Your task to perform on an android device: clear history in the chrome app Image 0: 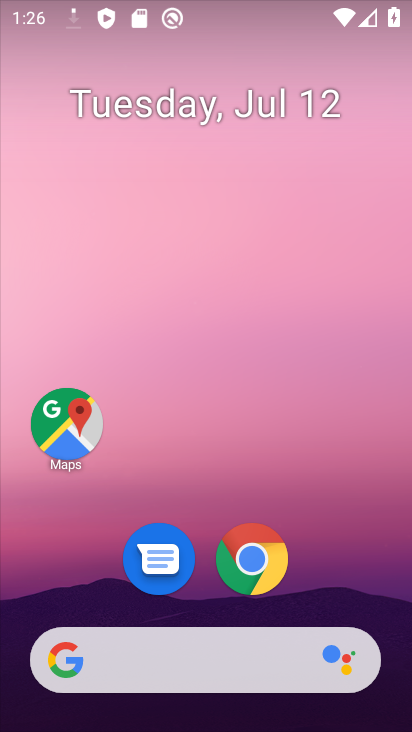
Step 0: drag from (362, 577) to (362, 289)
Your task to perform on an android device: clear history in the chrome app Image 1: 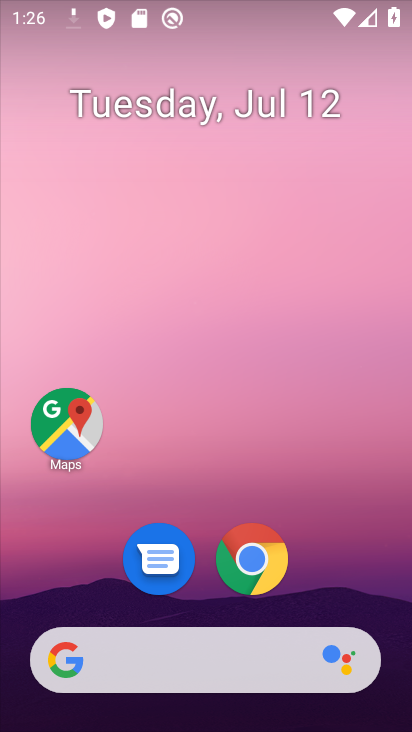
Step 1: drag from (375, 552) to (379, 157)
Your task to perform on an android device: clear history in the chrome app Image 2: 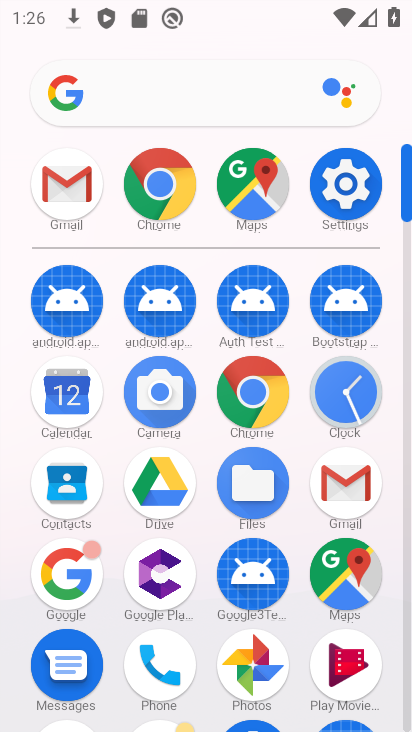
Step 2: click (266, 407)
Your task to perform on an android device: clear history in the chrome app Image 3: 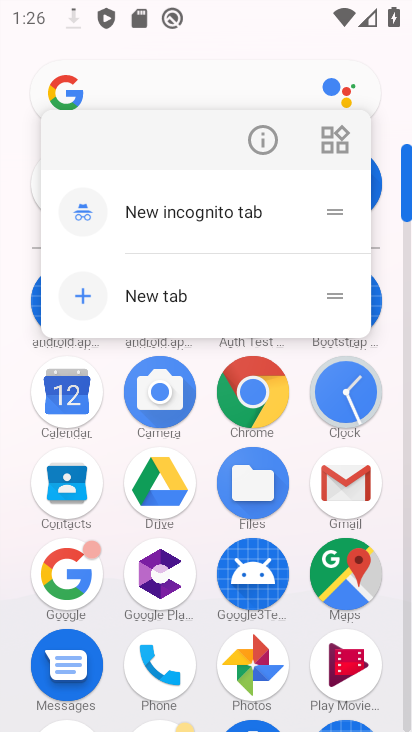
Step 3: click (266, 407)
Your task to perform on an android device: clear history in the chrome app Image 4: 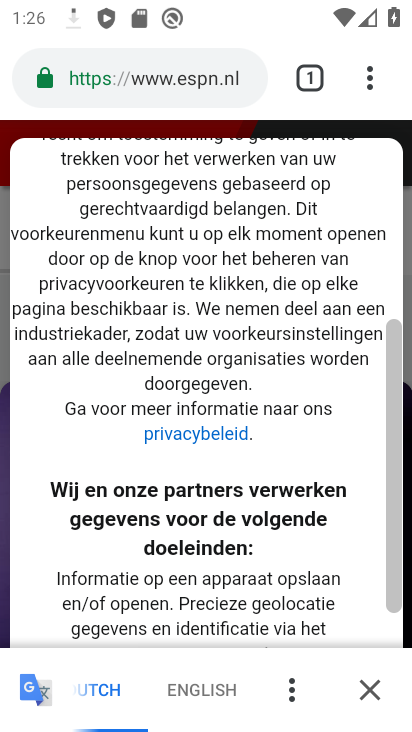
Step 4: click (372, 85)
Your task to perform on an android device: clear history in the chrome app Image 5: 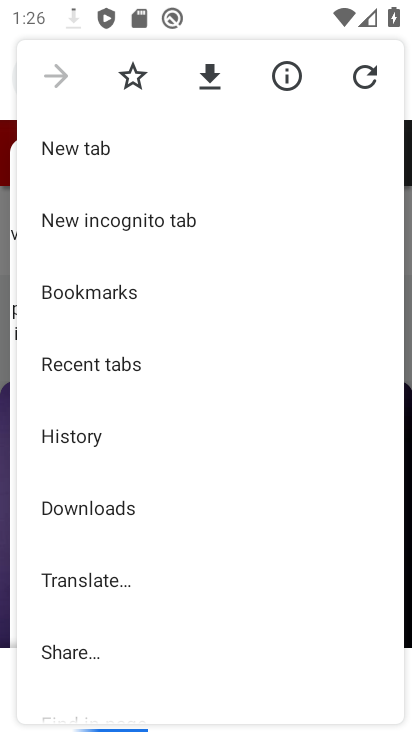
Step 5: drag from (249, 495) to (257, 350)
Your task to perform on an android device: clear history in the chrome app Image 6: 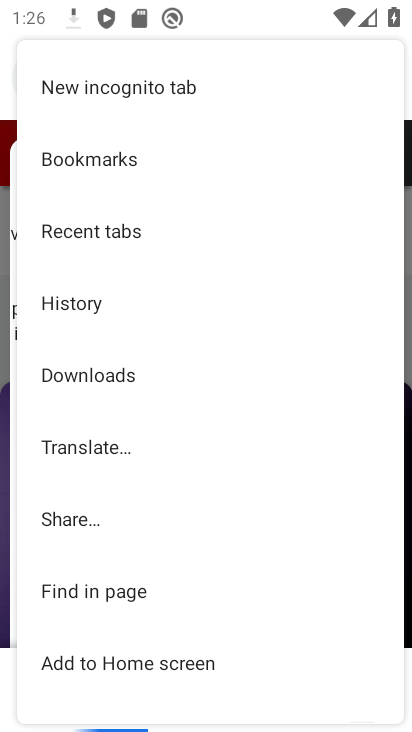
Step 6: drag from (231, 565) to (239, 424)
Your task to perform on an android device: clear history in the chrome app Image 7: 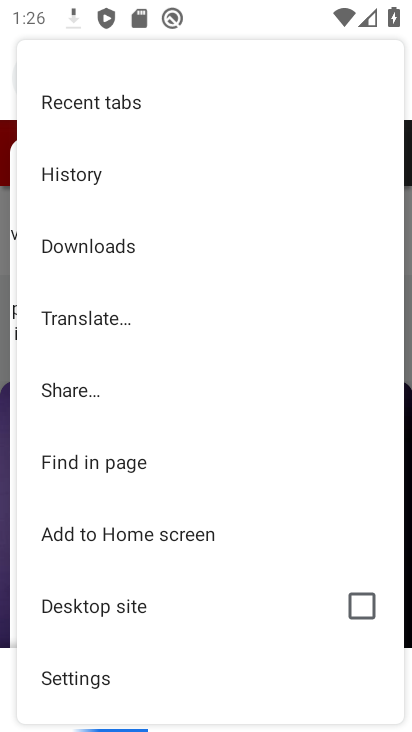
Step 7: drag from (209, 630) to (220, 458)
Your task to perform on an android device: clear history in the chrome app Image 8: 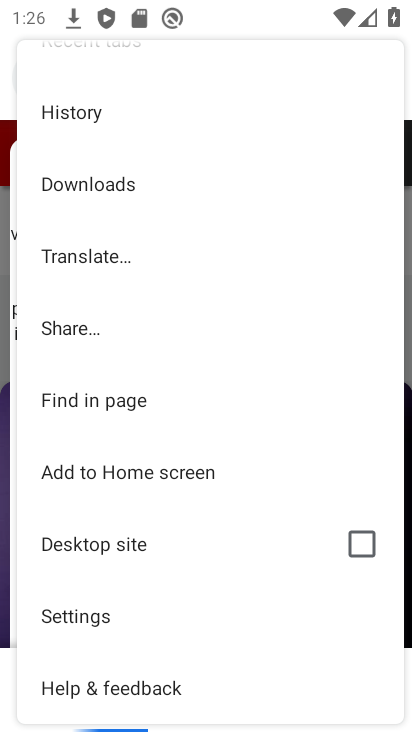
Step 8: drag from (212, 282) to (228, 525)
Your task to perform on an android device: clear history in the chrome app Image 9: 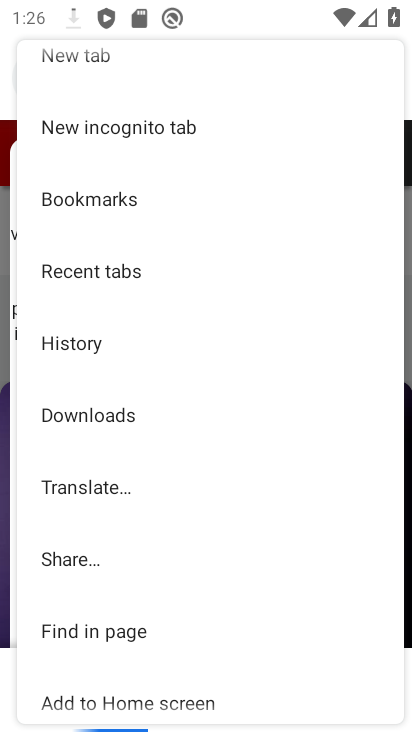
Step 9: click (108, 343)
Your task to perform on an android device: clear history in the chrome app Image 10: 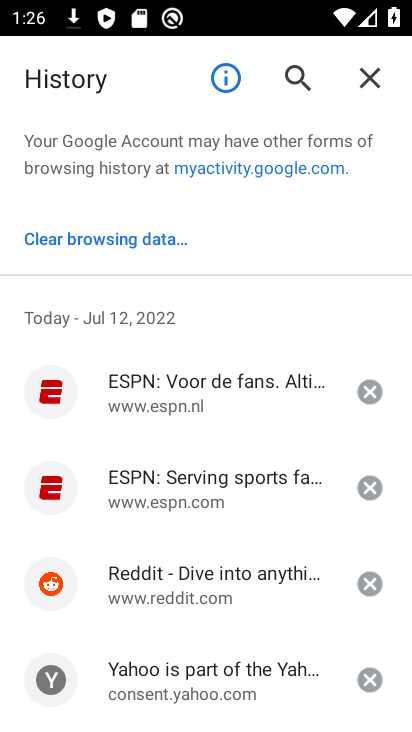
Step 10: click (167, 235)
Your task to perform on an android device: clear history in the chrome app Image 11: 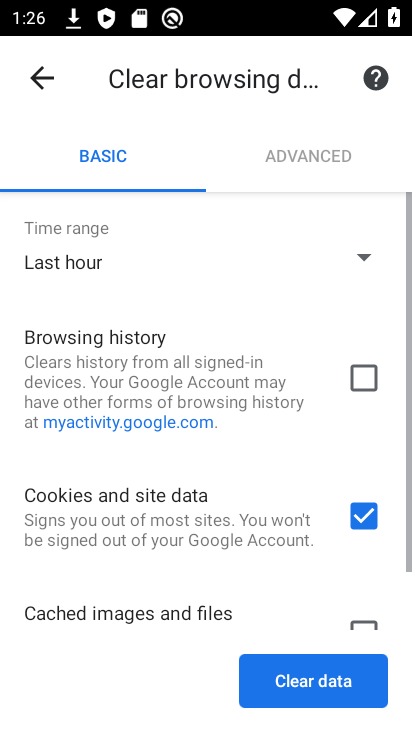
Step 11: click (336, 691)
Your task to perform on an android device: clear history in the chrome app Image 12: 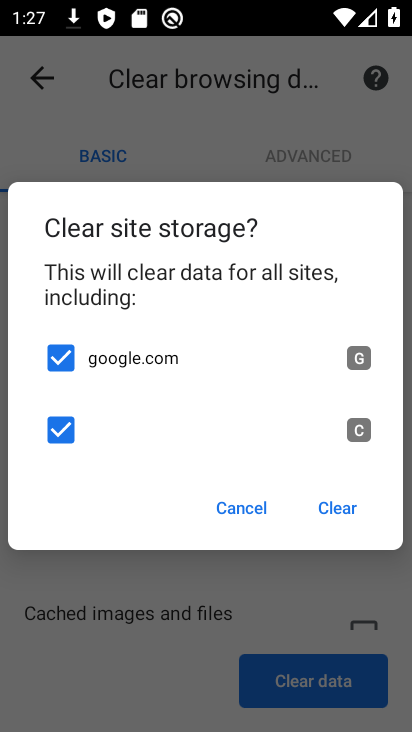
Step 12: click (320, 500)
Your task to perform on an android device: clear history in the chrome app Image 13: 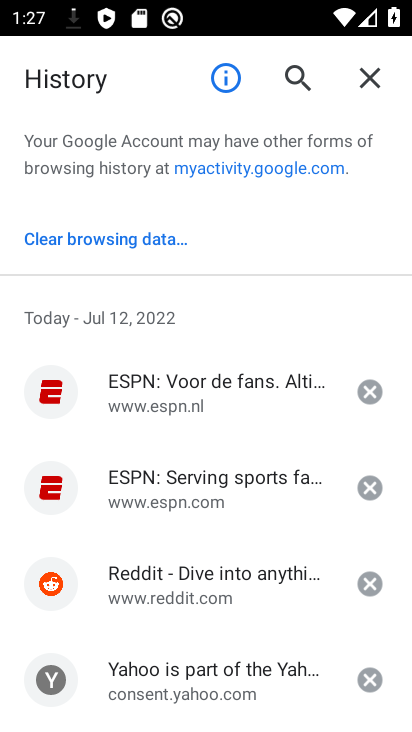
Step 13: click (151, 241)
Your task to perform on an android device: clear history in the chrome app Image 14: 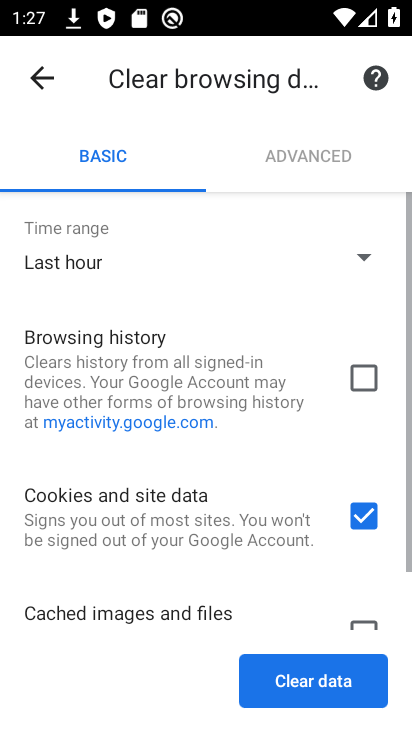
Step 14: click (373, 372)
Your task to perform on an android device: clear history in the chrome app Image 15: 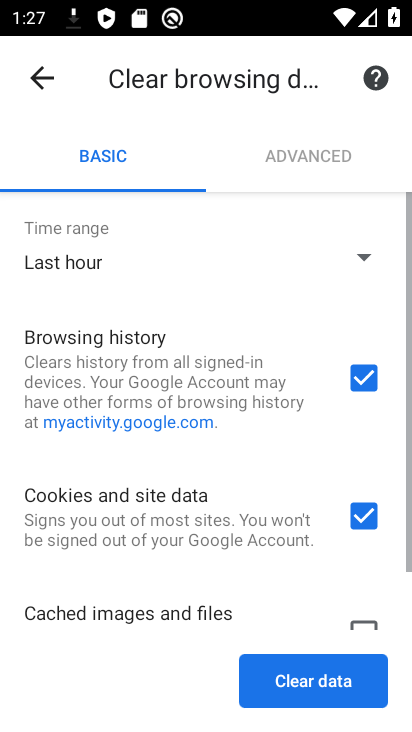
Step 15: drag from (305, 579) to (302, 401)
Your task to perform on an android device: clear history in the chrome app Image 16: 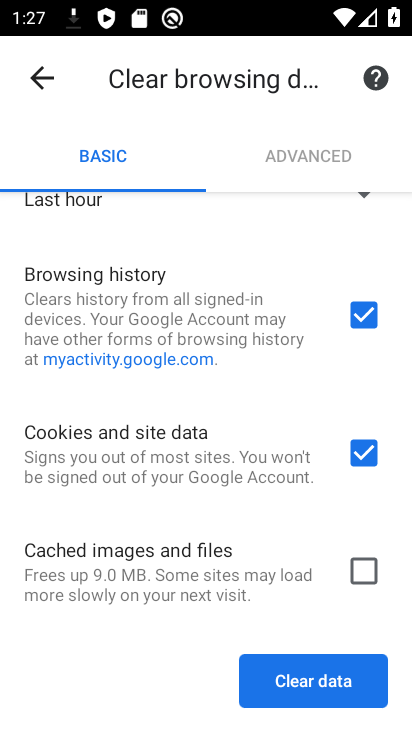
Step 16: click (364, 576)
Your task to perform on an android device: clear history in the chrome app Image 17: 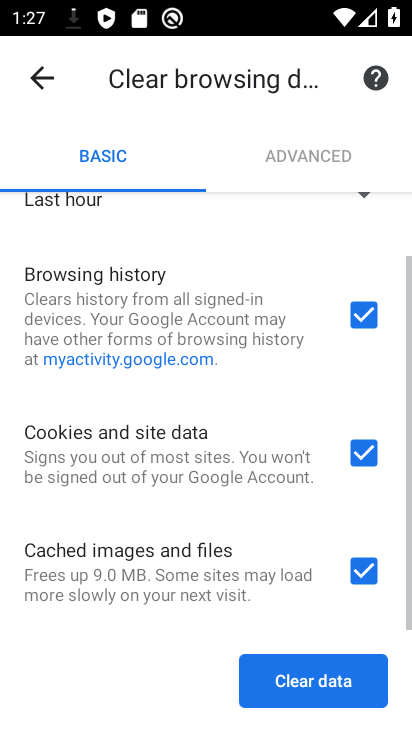
Step 17: click (289, 681)
Your task to perform on an android device: clear history in the chrome app Image 18: 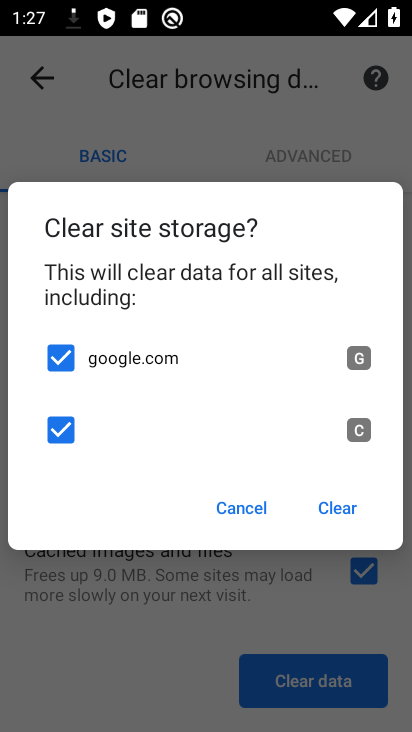
Step 18: click (340, 495)
Your task to perform on an android device: clear history in the chrome app Image 19: 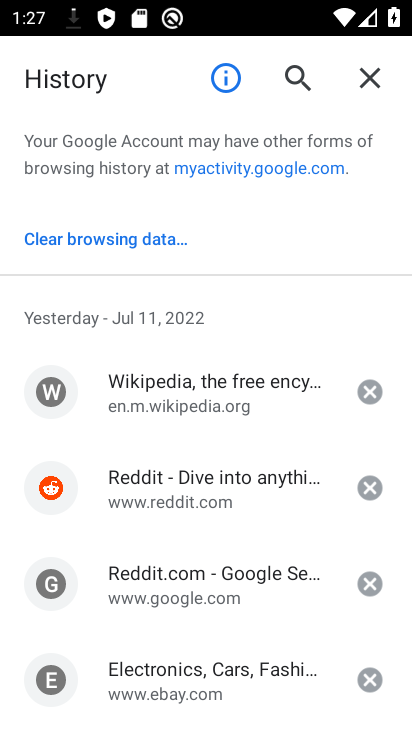
Step 19: click (126, 242)
Your task to perform on an android device: clear history in the chrome app Image 20: 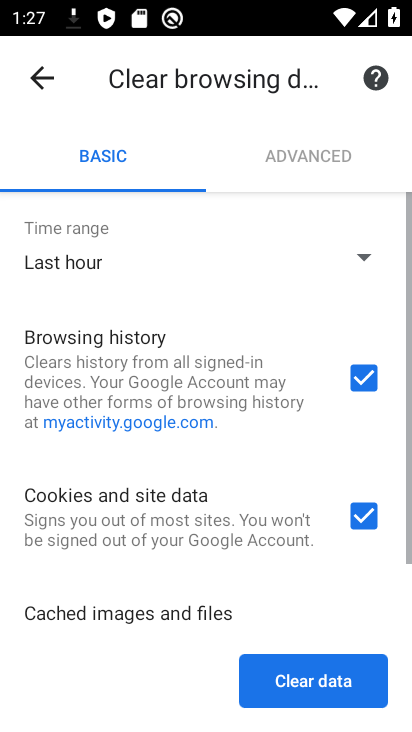
Step 20: click (298, 149)
Your task to perform on an android device: clear history in the chrome app Image 21: 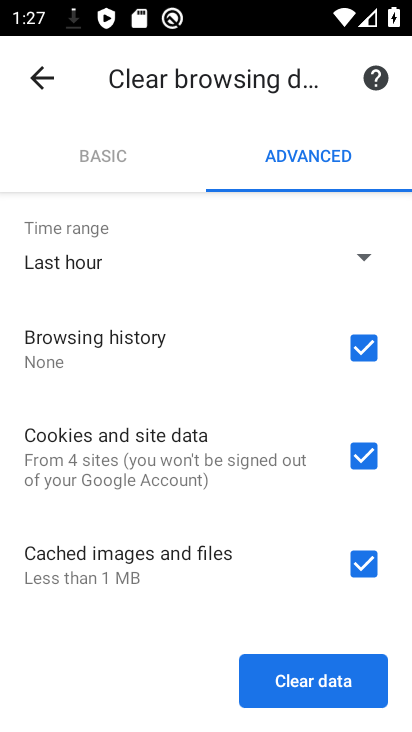
Step 21: click (314, 693)
Your task to perform on an android device: clear history in the chrome app Image 22: 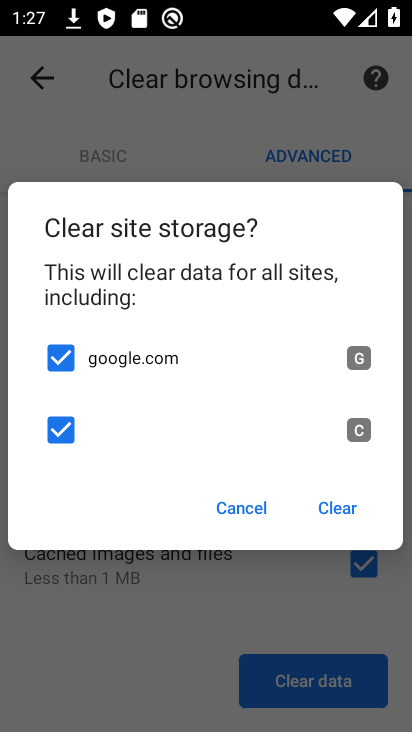
Step 22: click (314, 507)
Your task to perform on an android device: clear history in the chrome app Image 23: 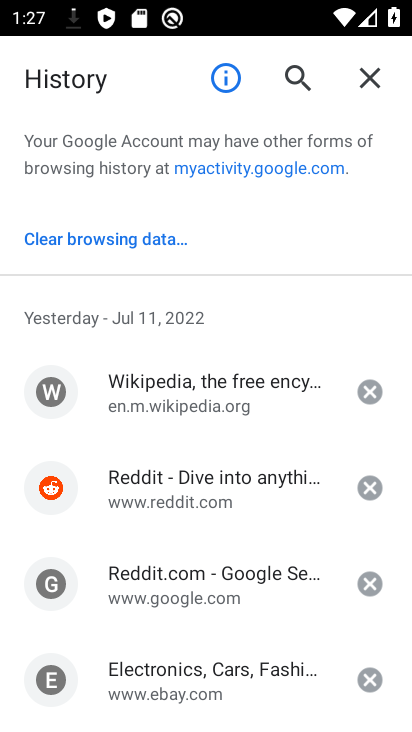
Step 23: click (104, 244)
Your task to perform on an android device: clear history in the chrome app Image 24: 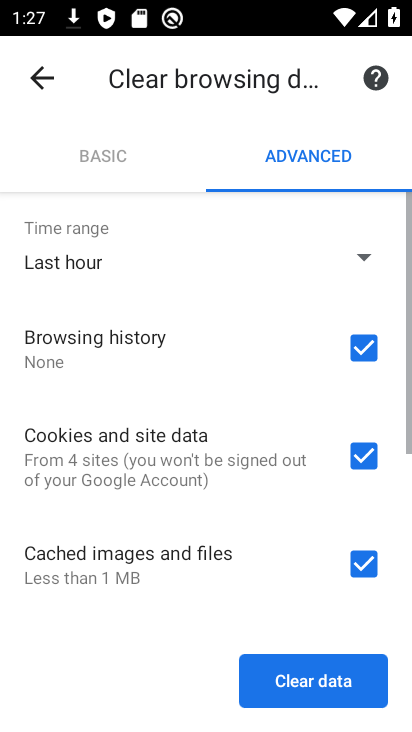
Step 24: drag from (281, 540) to (273, 322)
Your task to perform on an android device: clear history in the chrome app Image 25: 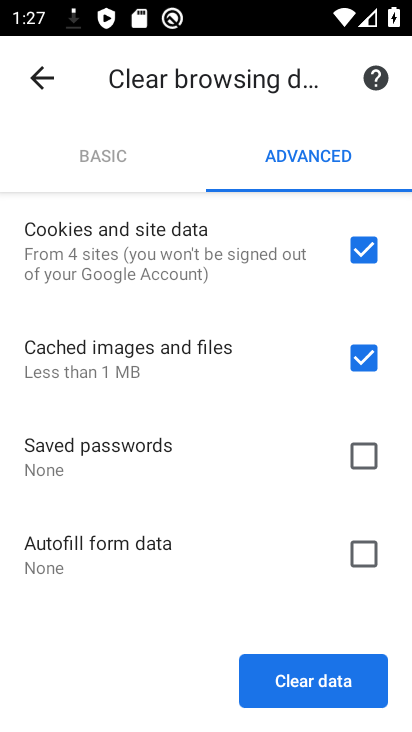
Step 25: click (360, 454)
Your task to perform on an android device: clear history in the chrome app Image 26: 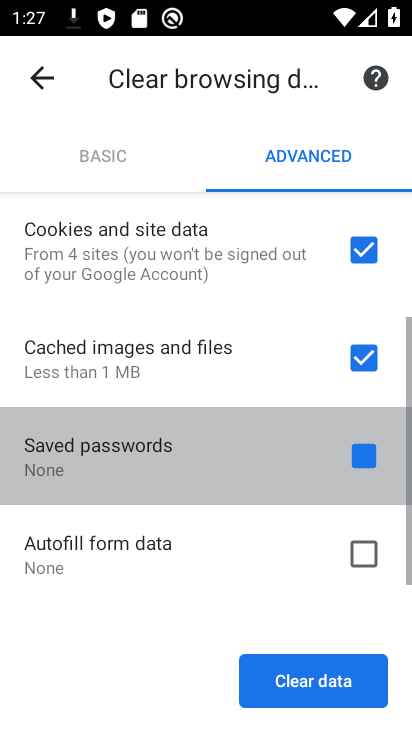
Step 26: click (363, 560)
Your task to perform on an android device: clear history in the chrome app Image 27: 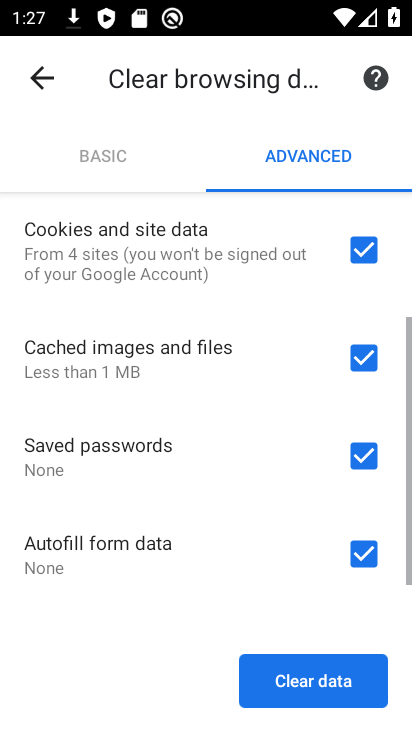
Step 27: drag from (270, 518) to (269, 326)
Your task to perform on an android device: clear history in the chrome app Image 28: 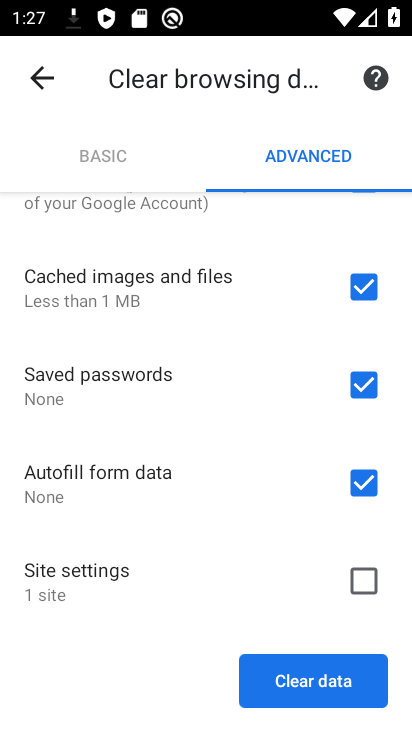
Step 28: click (368, 580)
Your task to perform on an android device: clear history in the chrome app Image 29: 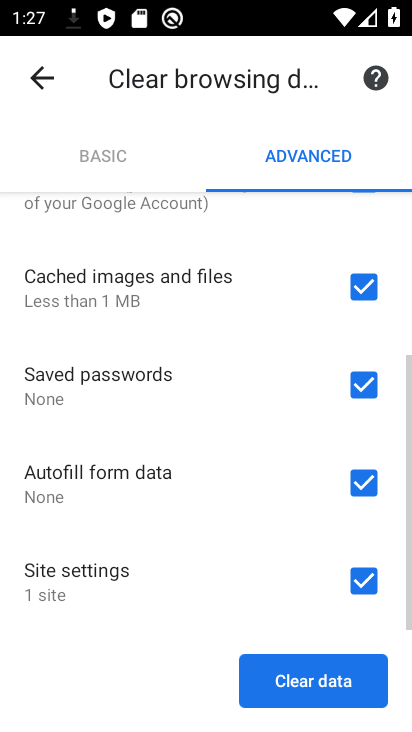
Step 29: click (291, 686)
Your task to perform on an android device: clear history in the chrome app Image 30: 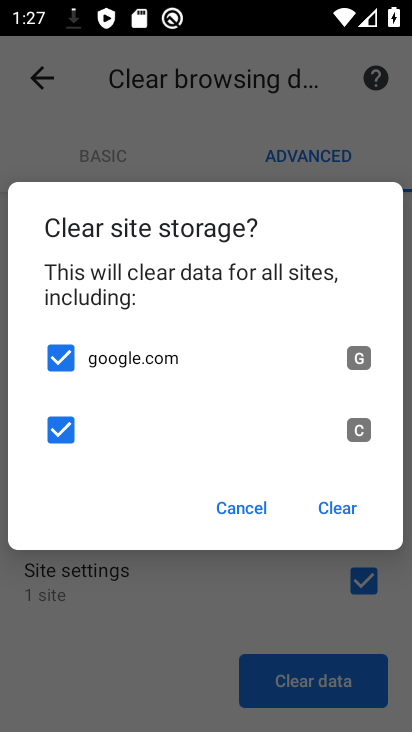
Step 30: click (330, 510)
Your task to perform on an android device: clear history in the chrome app Image 31: 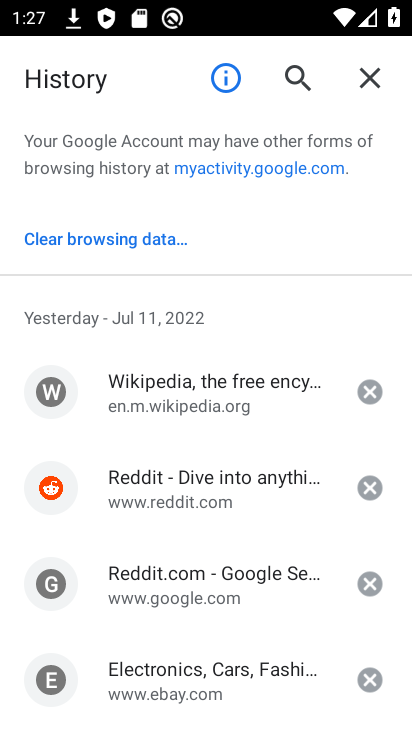
Step 31: task complete